Your task to perform on an android device: What is the news today? Image 0: 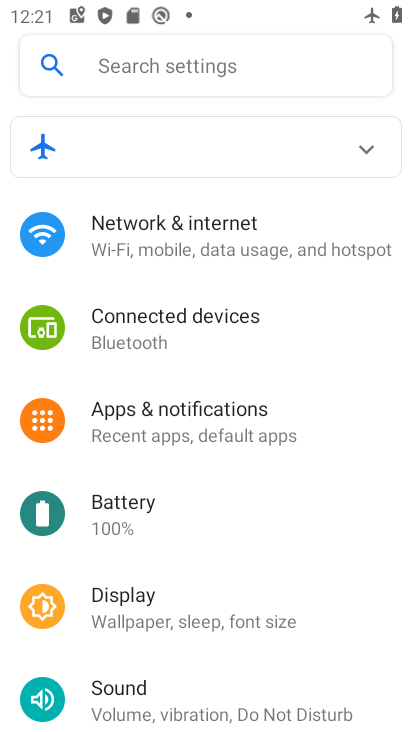
Step 0: press home button
Your task to perform on an android device: What is the news today? Image 1: 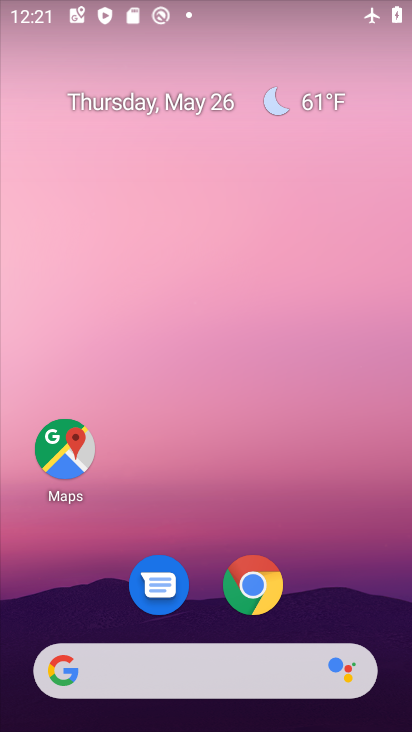
Step 1: click (276, 689)
Your task to perform on an android device: What is the news today? Image 2: 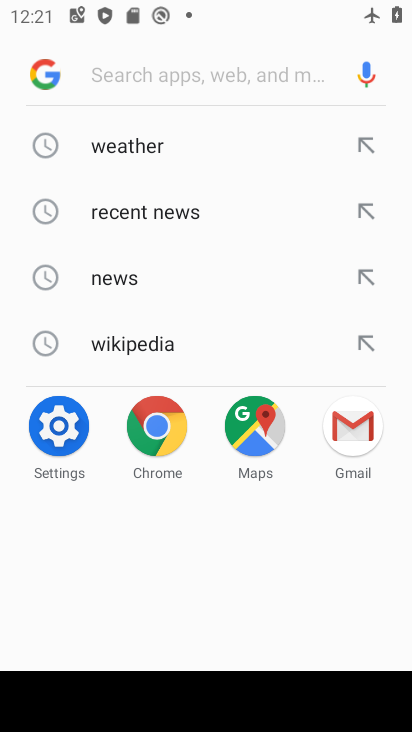
Step 2: click (114, 267)
Your task to perform on an android device: What is the news today? Image 3: 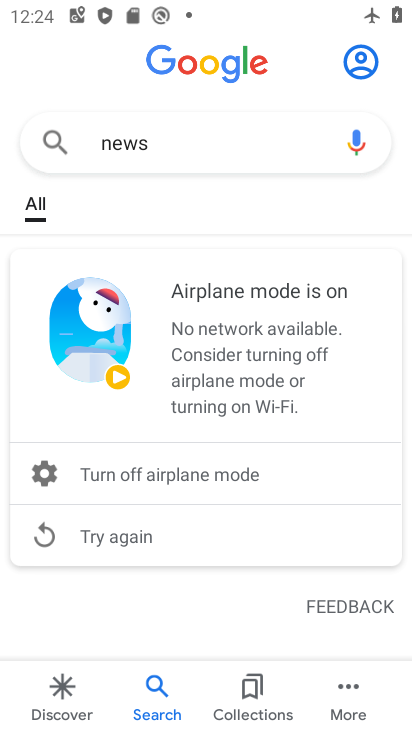
Step 3: task complete